Your task to perform on an android device: toggle show notifications on the lock screen Image 0: 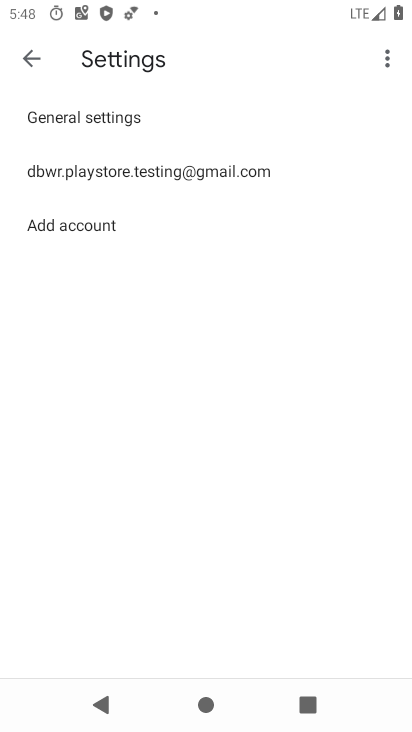
Step 0: click (87, 167)
Your task to perform on an android device: toggle show notifications on the lock screen Image 1: 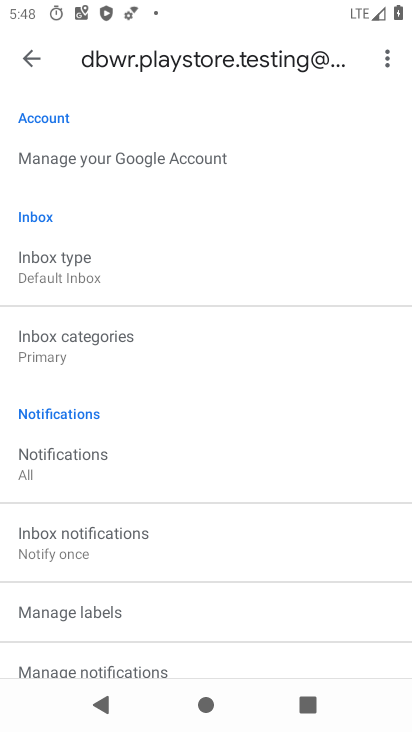
Step 1: press home button
Your task to perform on an android device: toggle show notifications on the lock screen Image 2: 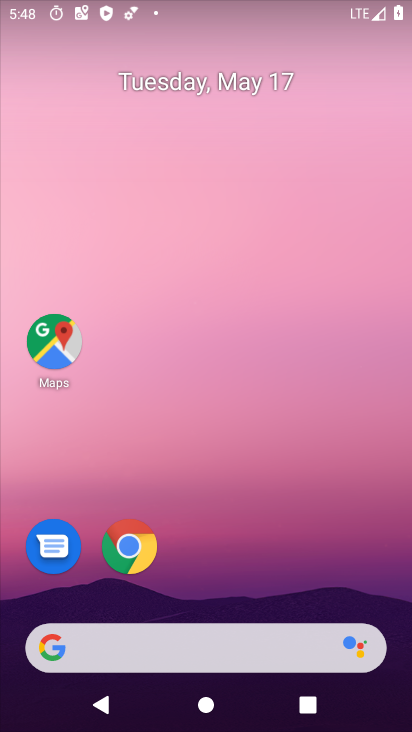
Step 2: drag from (239, 421) to (127, 95)
Your task to perform on an android device: toggle show notifications on the lock screen Image 3: 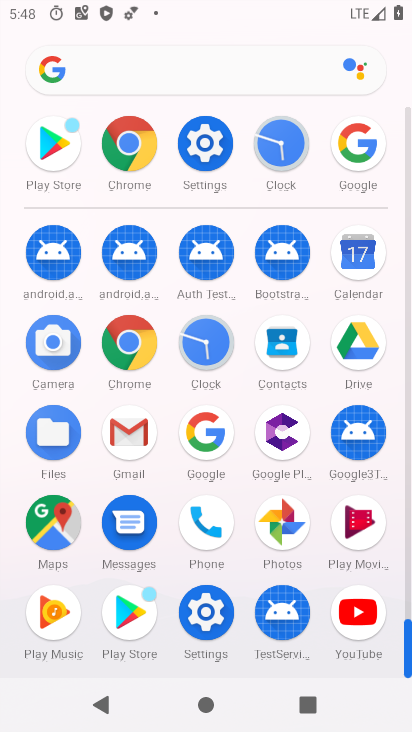
Step 3: click (207, 602)
Your task to perform on an android device: toggle show notifications on the lock screen Image 4: 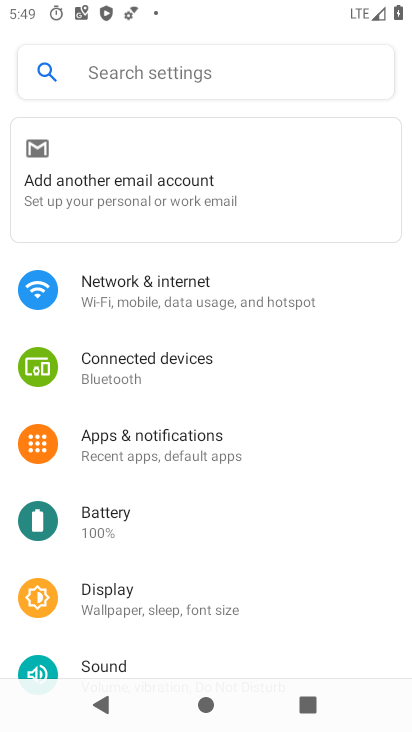
Step 4: click (138, 445)
Your task to perform on an android device: toggle show notifications on the lock screen Image 5: 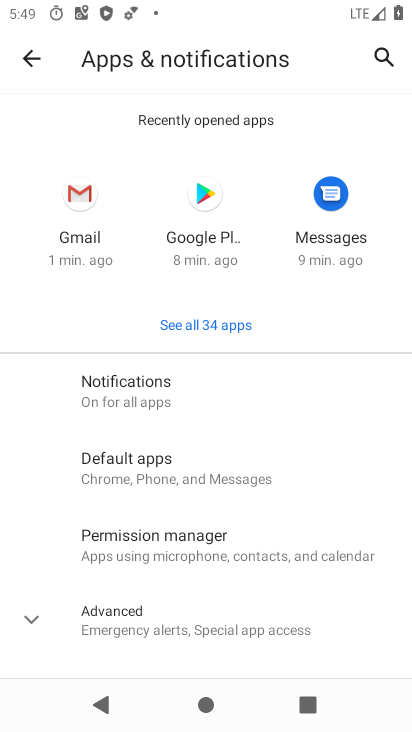
Step 5: click (119, 618)
Your task to perform on an android device: toggle show notifications on the lock screen Image 6: 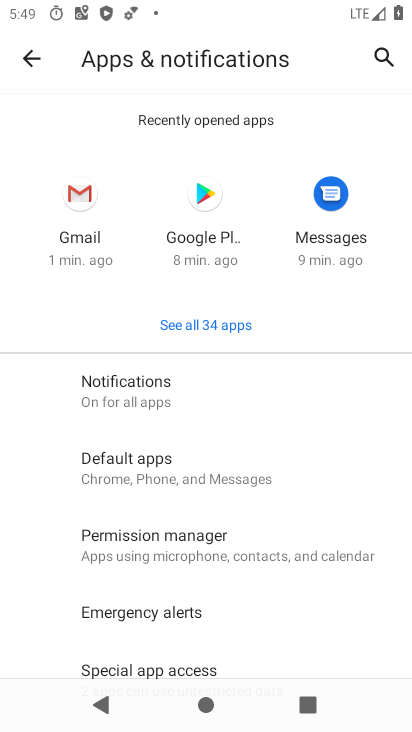
Step 6: click (138, 377)
Your task to perform on an android device: toggle show notifications on the lock screen Image 7: 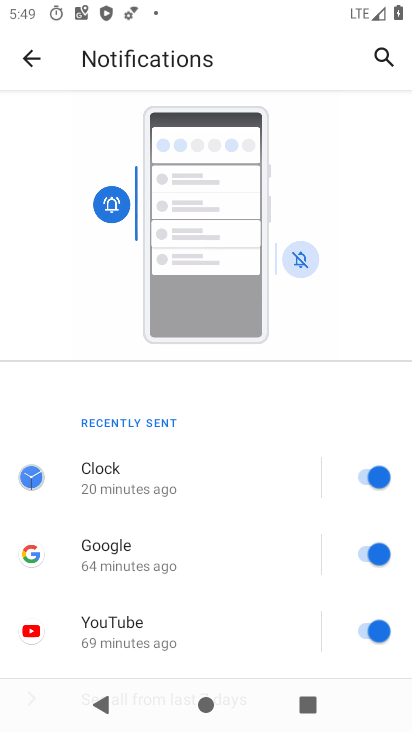
Step 7: drag from (120, 589) to (120, 197)
Your task to perform on an android device: toggle show notifications on the lock screen Image 8: 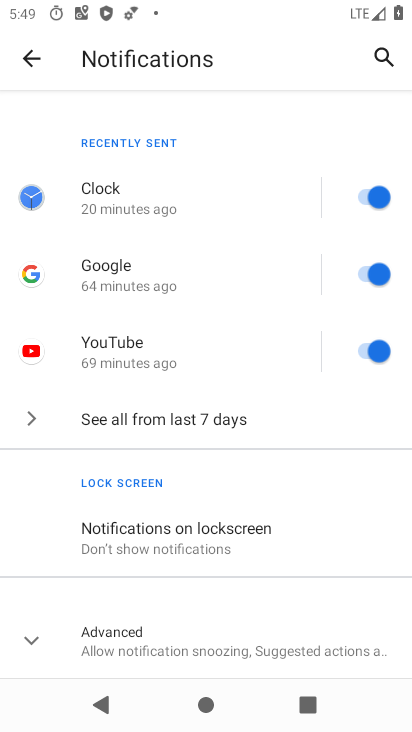
Step 8: click (159, 545)
Your task to perform on an android device: toggle show notifications on the lock screen Image 9: 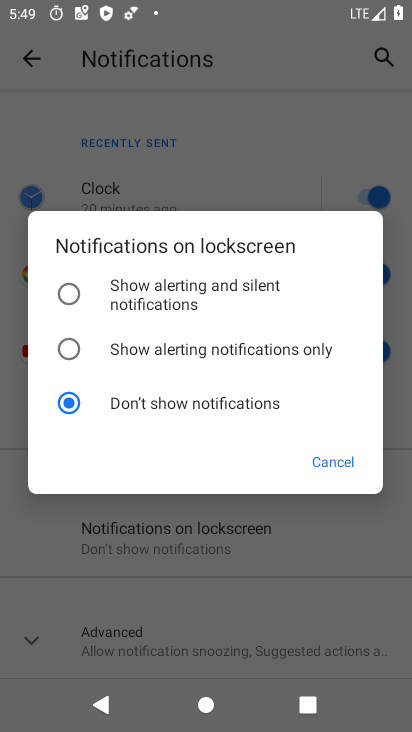
Step 9: task complete